Your task to perform on an android device: delete the emails in spam in the gmail app Image 0: 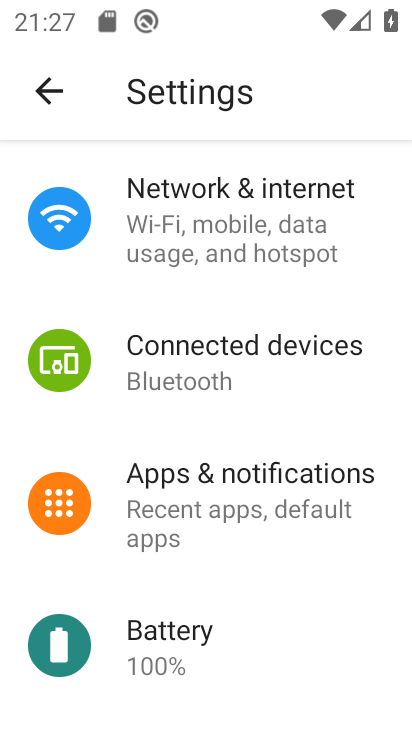
Step 0: press home button
Your task to perform on an android device: delete the emails in spam in the gmail app Image 1: 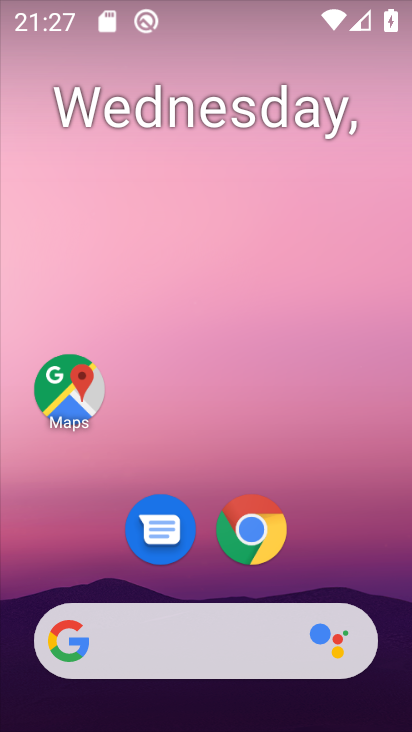
Step 1: drag from (69, 597) to (181, 137)
Your task to perform on an android device: delete the emails in spam in the gmail app Image 2: 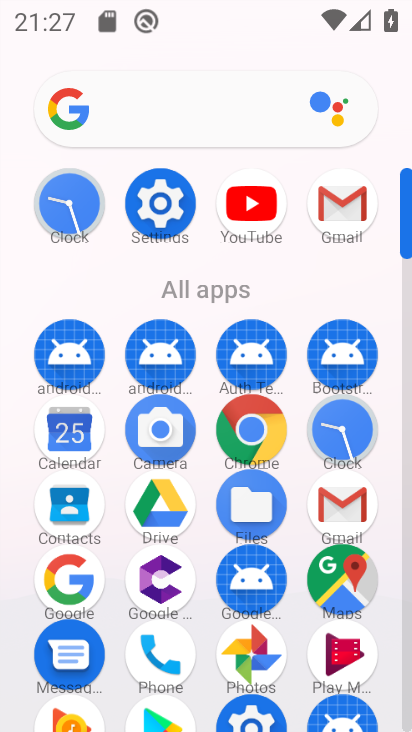
Step 2: click (342, 504)
Your task to perform on an android device: delete the emails in spam in the gmail app Image 3: 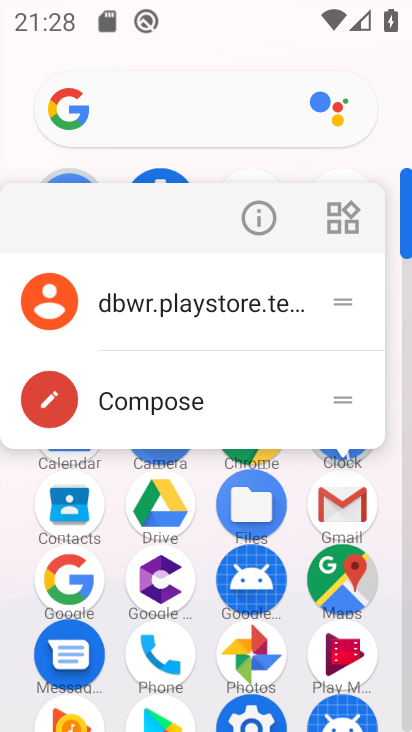
Step 3: click (363, 501)
Your task to perform on an android device: delete the emails in spam in the gmail app Image 4: 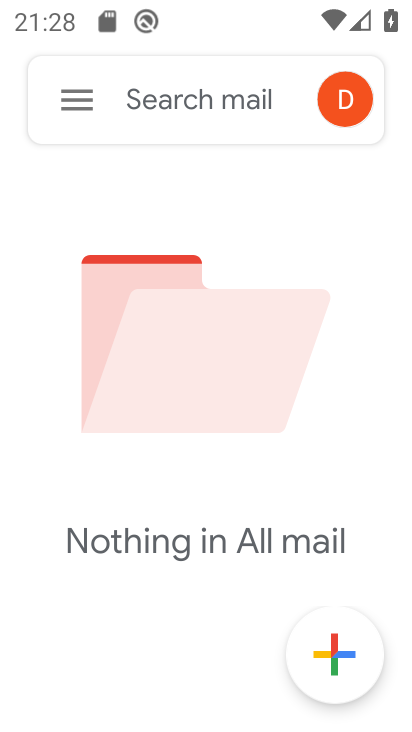
Step 4: click (75, 101)
Your task to perform on an android device: delete the emails in spam in the gmail app Image 5: 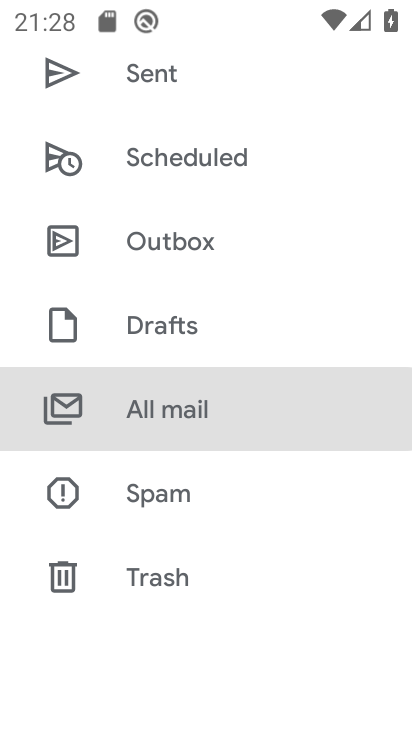
Step 5: click (154, 501)
Your task to perform on an android device: delete the emails in spam in the gmail app Image 6: 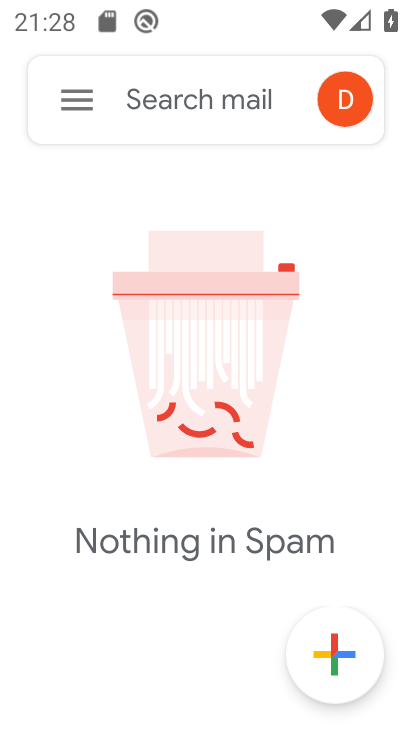
Step 6: task complete